Your task to perform on an android device: Go to battery settings Image 0: 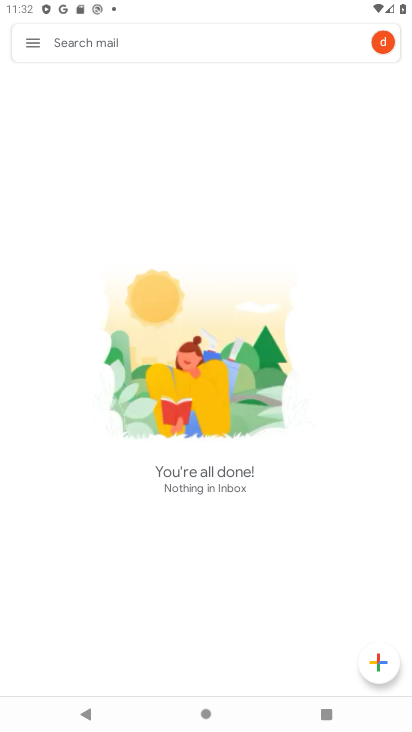
Step 0: press home button
Your task to perform on an android device: Go to battery settings Image 1: 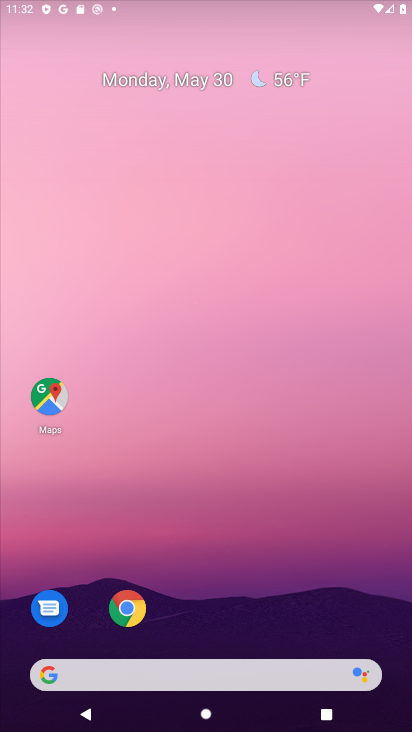
Step 1: drag from (220, 613) to (202, 55)
Your task to perform on an android device: Go to battery settings Image 2: 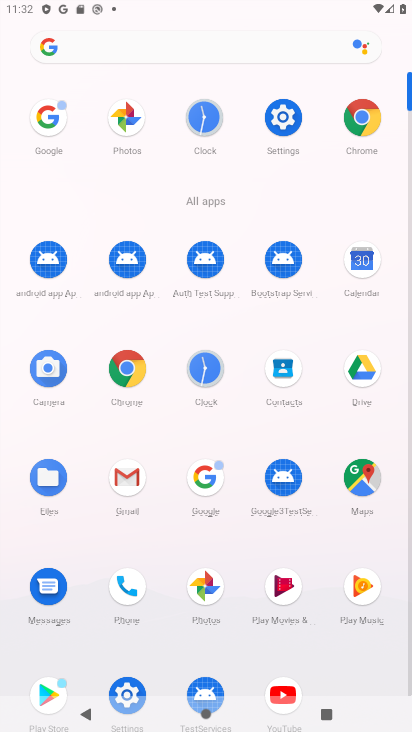
Step 2: click (288, 118)
Your task to perform on an android device: Go to battery settings Image 3: 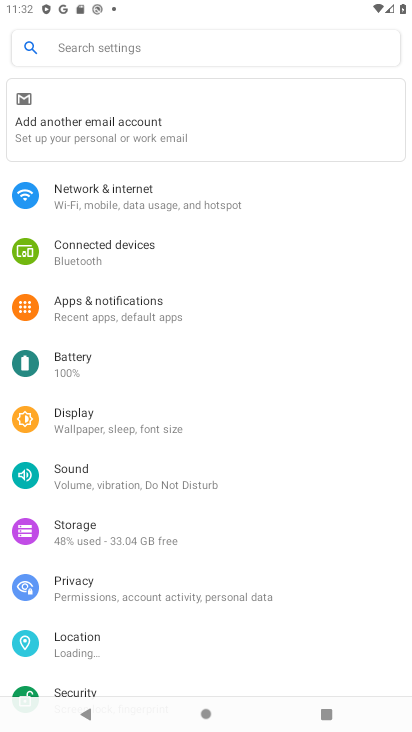
Step 3: click (84, 369)
Your task to perform on an android device: Go to battery settings Image 4: 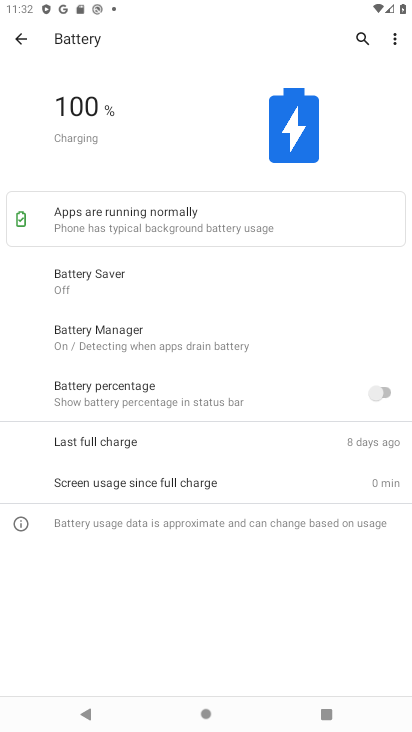
Step 4: task complete